Your task to perform on an android device: Open Google Maps and go to "Timeline" Image 0: 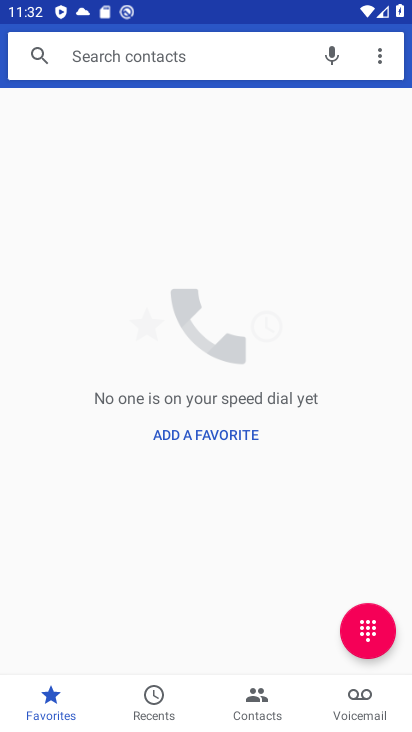
Step 0: press back button
Your task to perform on an android device: Open Google Maps and go to "Timeline" Image 1: 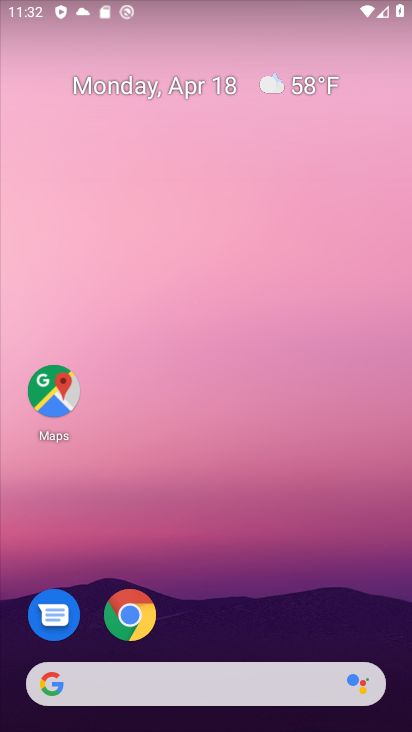
Step 1: click (61, 386)
Your task to perform on an android device: Open Google Maps and go to "Timeline" Image 2: 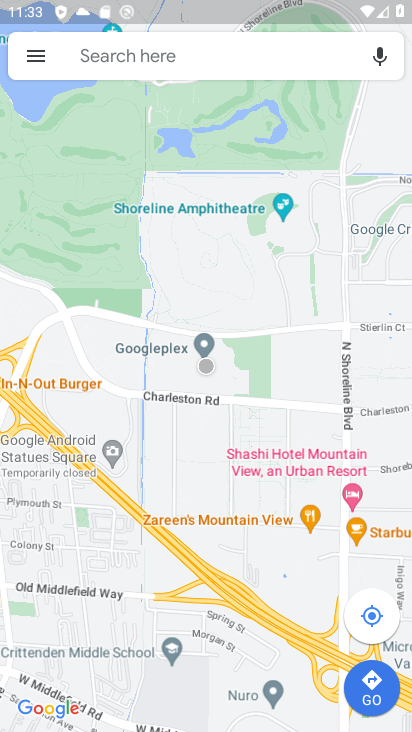
Step 2: click (35, 58)
Your task to perform on an android device: Open Google Maps and go to "Timeline" Image 3: 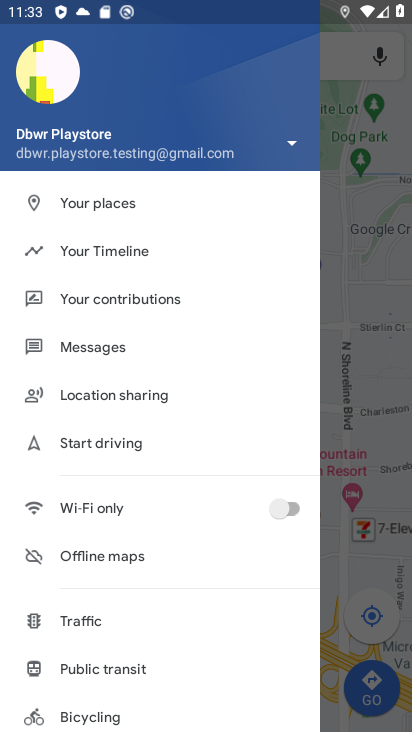
Step 3: click (84, 249)
Your task to perform on an android device: Open Google Maps and go to "Timeline" Image 4: 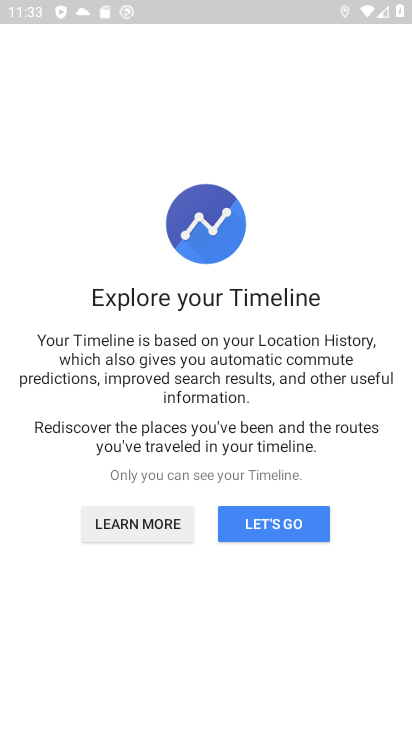
Step 4: click (281, 517)
Your task to perform on an android device: Open Google Maps and go to "Timeline" Image 5: 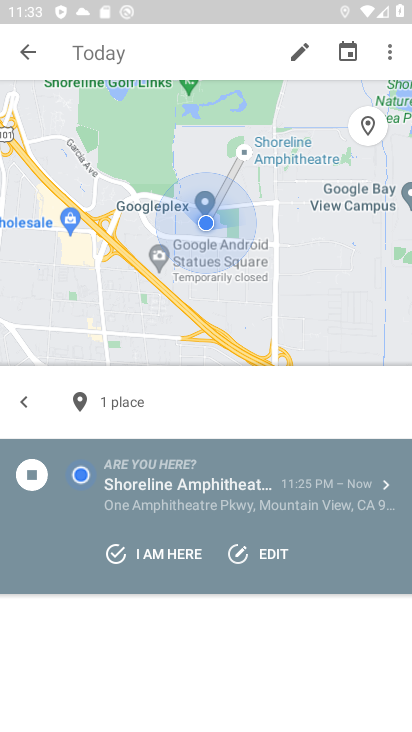
Step 5: task complete